Your task to perform on an android device: Toggle the flashlight Image 0: 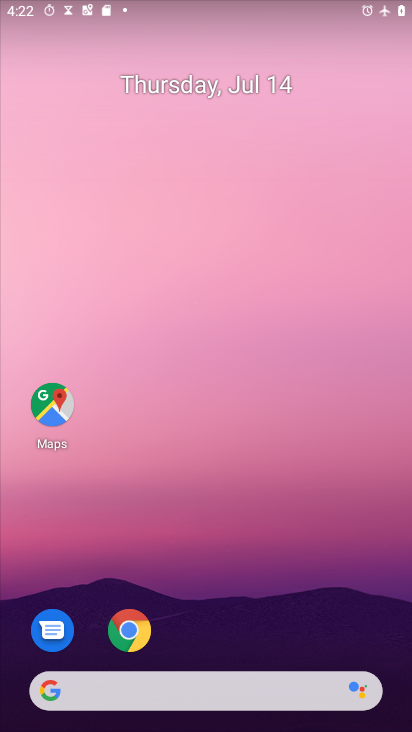
Step 0: drag from (225, 729) to (217, 145)
Your task to perform on an android device: Toggle the flashlight Image 1: 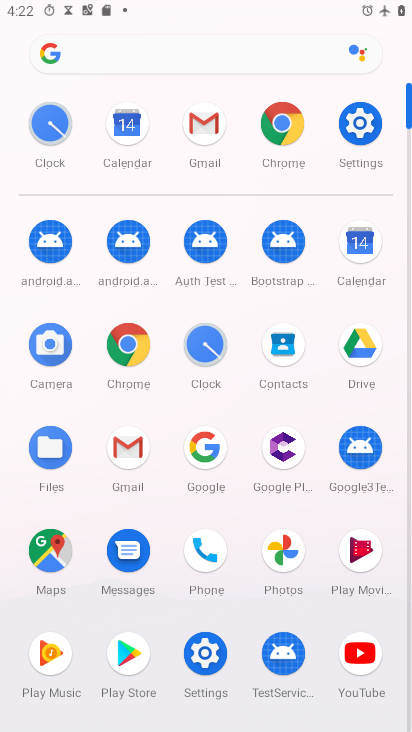
Step 1: click (356, 124)
Your task to perform on an android device: Toggle the flashlight Image 2: 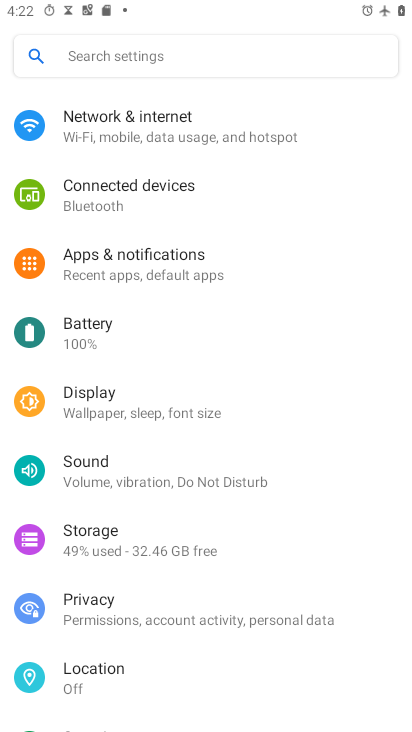
Step 2: task complete